Your task to perform on an android device: Search for the new nike air max shoes on Nike. Image 0: 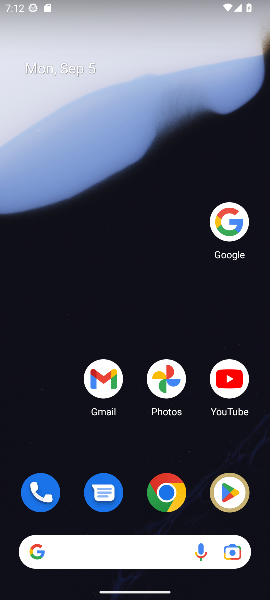
Step 0: click (228, 220)
Your task to perform on an android device: Search for the new nike air max shoes on Nike. Image 1: 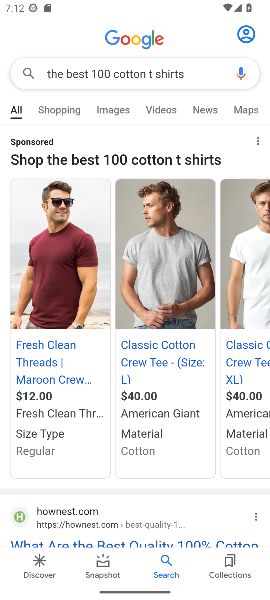
Step 1: click (194, 67)
Your task to perform on an android device: Search for the new nike air max shoes on Nike. Image 2: 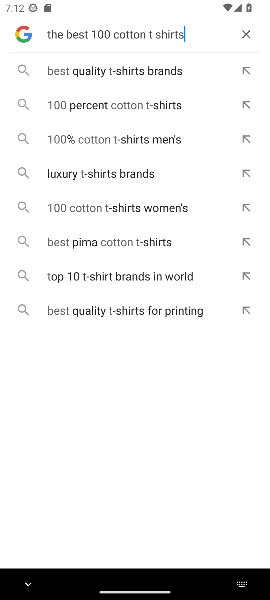
Step 2: click (239, 33)
Your task to perform on an android device: Search for the new nike air max shoes on Nike. Image 3: 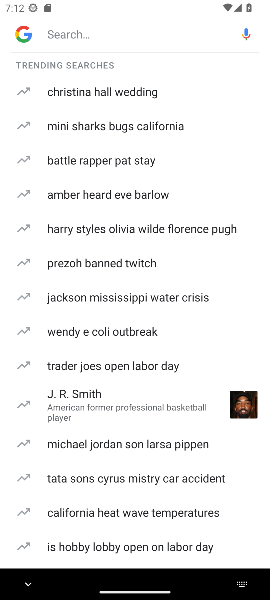
Step 3: click (64, 25)
Your task to perform on an android device: Search for the new nike air max shoes on Nike. Image 4: 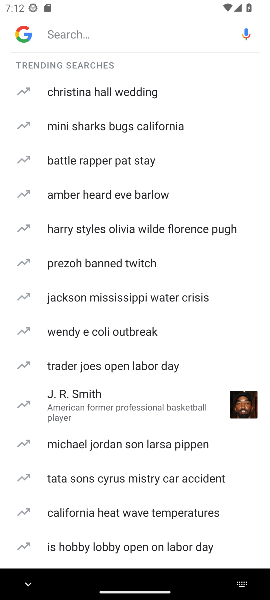
Step 4: type " the new nike air max shoes on Nike "
Your task to perform on an android device: Search for the new nike air max shoes on Nike. Image 5: 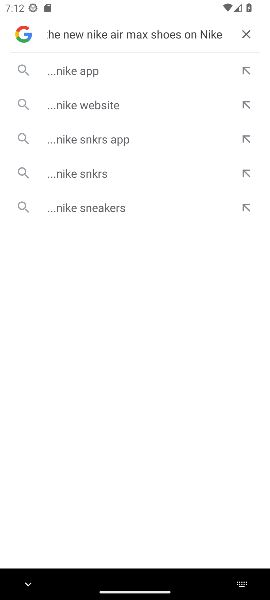
Step 5: click (52, 65)
Your task to perform on an android device: Search for the new nike air max shoes on Nike. Image 6: 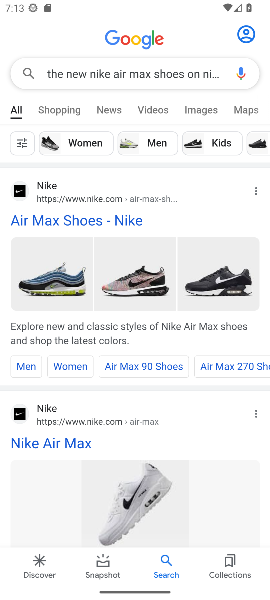
Step 6: task complete